Your task to perform on an android device: Open CNN.com Image 0: 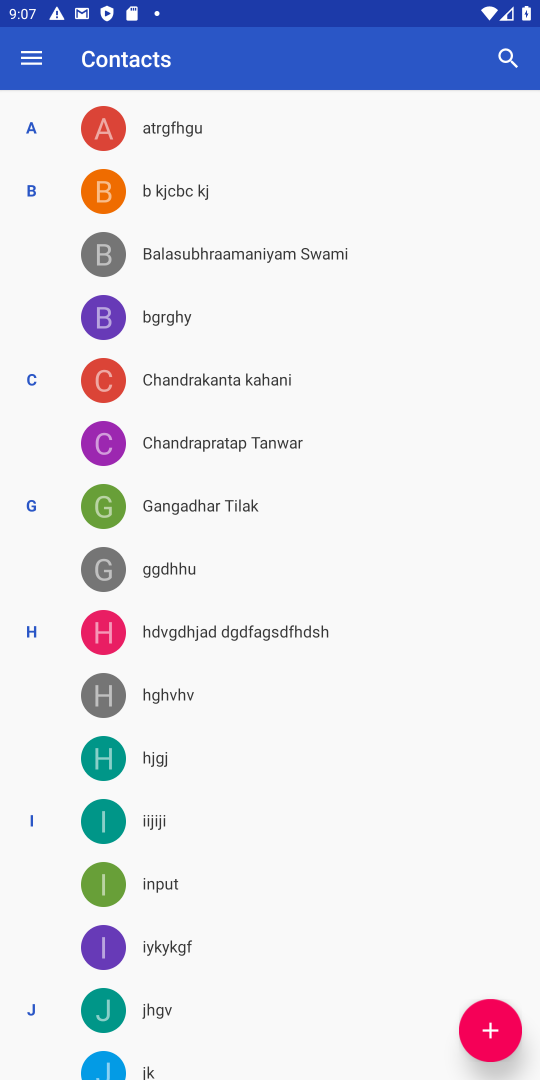
Step 0: press home button
Your task to perform on an android device: Open CNN.com Image 1: 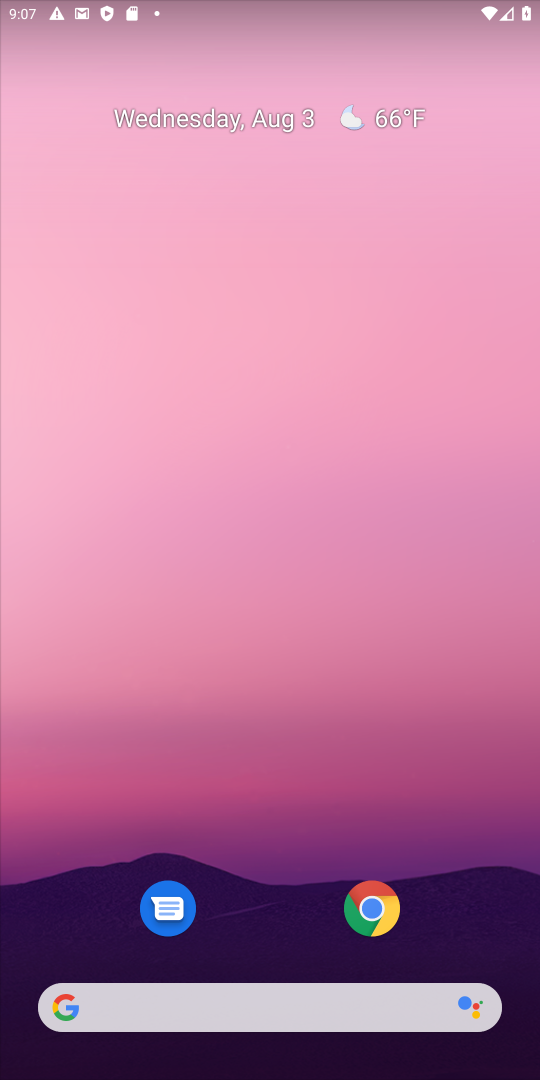
Step 1: drag from (282, 995) to (447, 11)
Your task to perform on an android device: Open CNN.com Image 2: 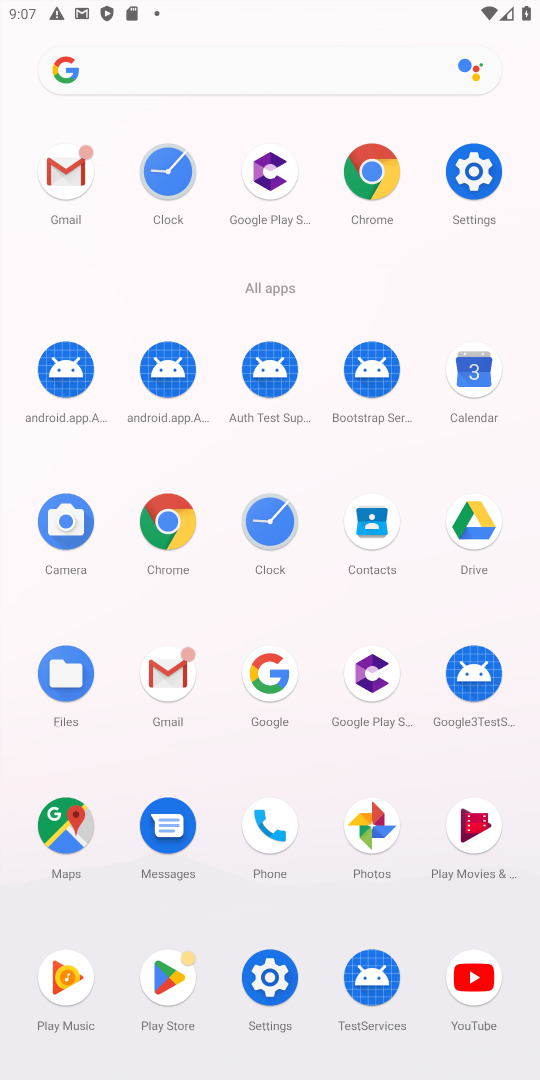
Step 2: click (169, 513)
Your task to perform on an android device: Open CNN.com Image 3: 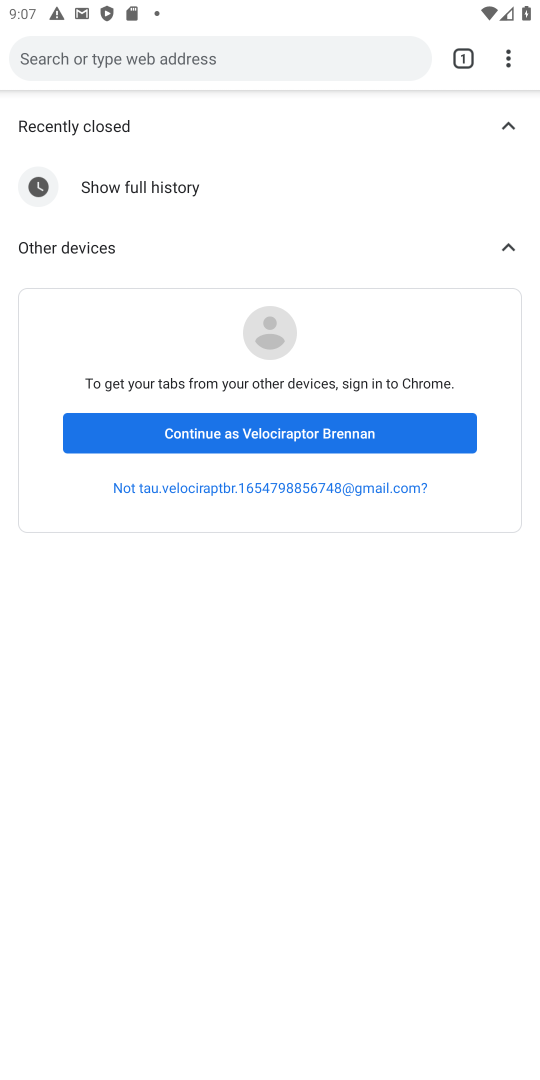
Step 3: click (223, 60)
Your task to perform on an android device: Open CNN.com Image 4: 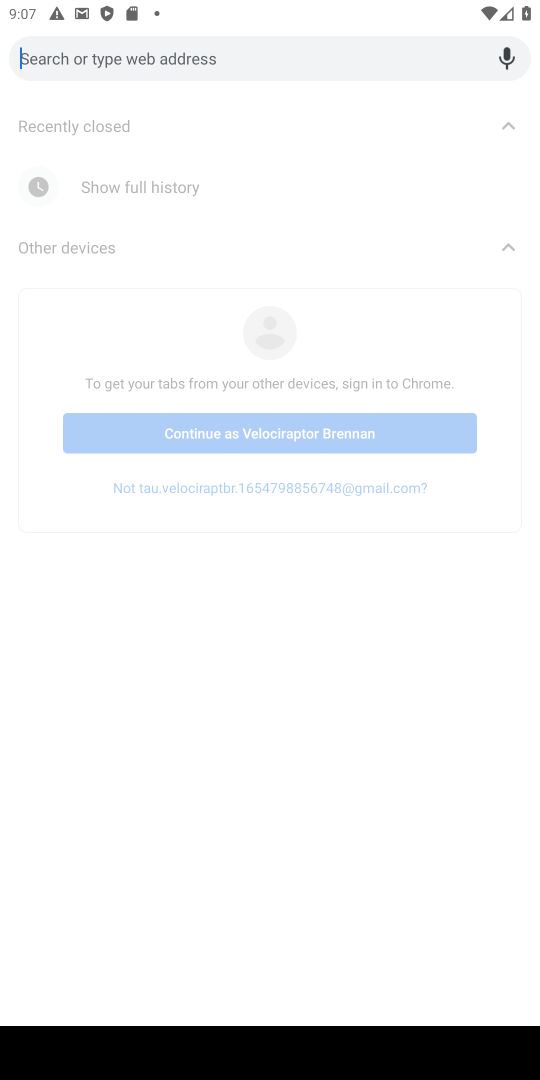
Step 4: type "cnn.com"
Your task to perform on an android device: Open CNN.com Image 5: 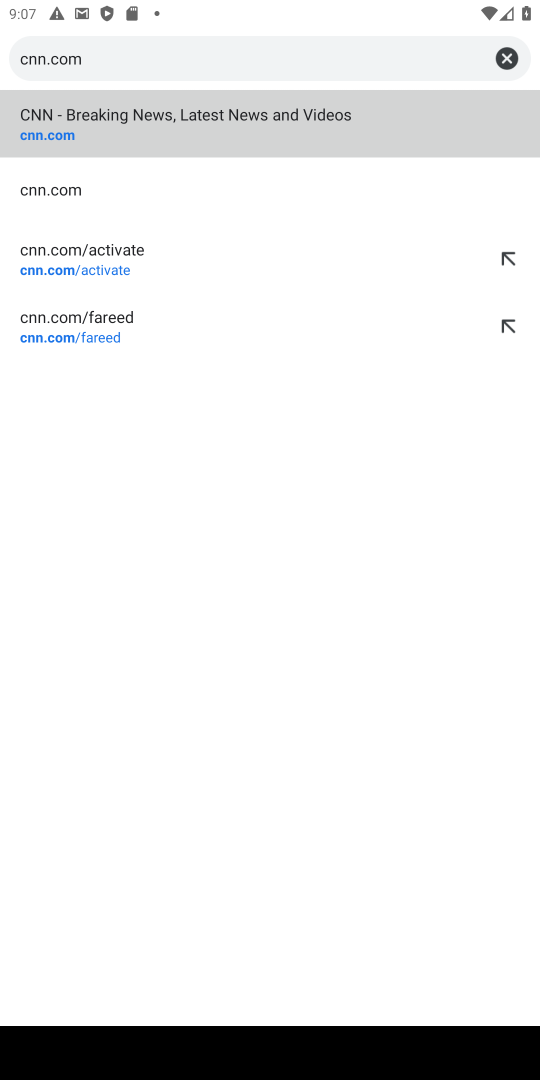
Step 5: click (161, 109)
Your task to perform on an android device: Open CNN.com Image 6: 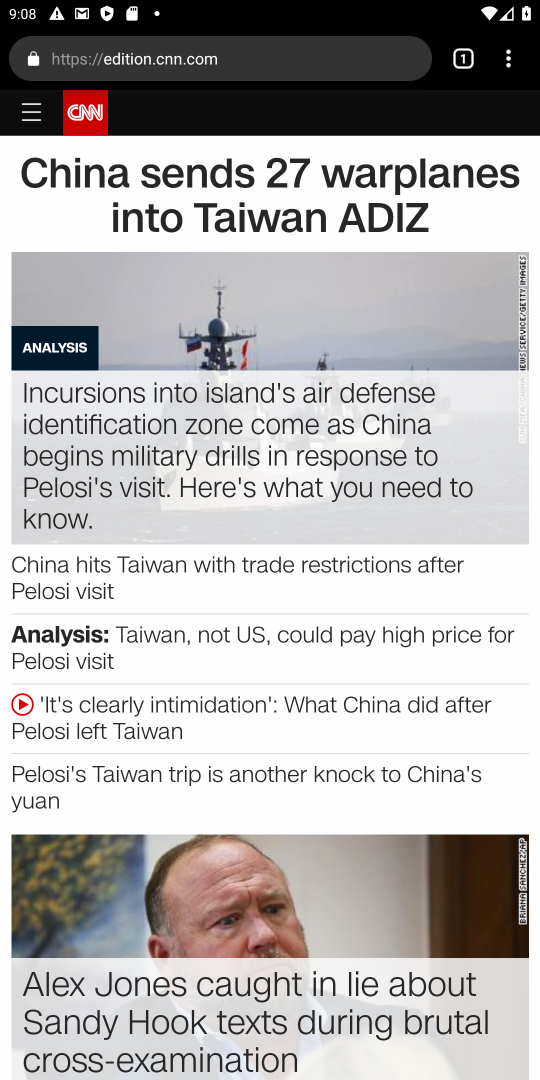
Step 6: task complete